Your task to perform on an android device: clear all cookies in the chrome app Image 0: 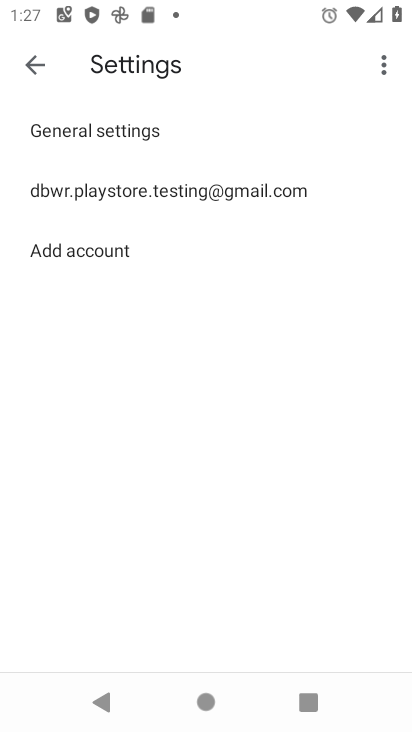
Step 0: click (41, 80)
Your task to perform on an android device: clear all cookies in the chrome app Image 1: 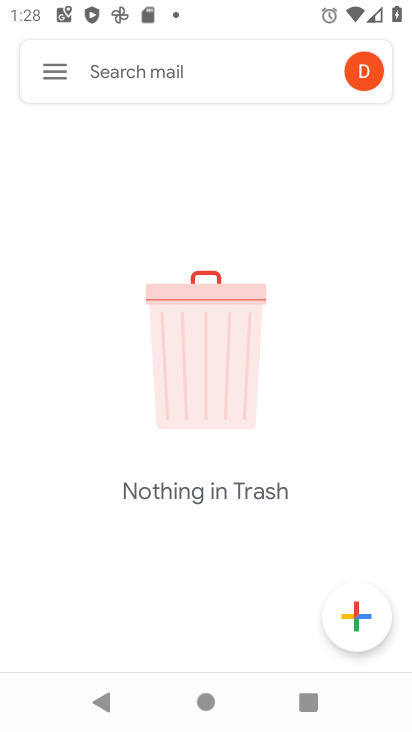
Step 1: press home button
Your task to perform on an android device: clear all cookies in the chrome app Image 2: 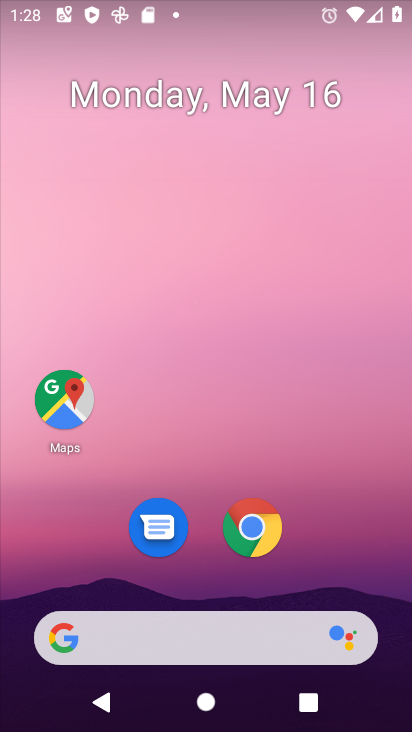
Step 2: drag from (365, 513) to (308, 32)
Your task to perform on an android device: clear all cookies in the chrome app Image 3: 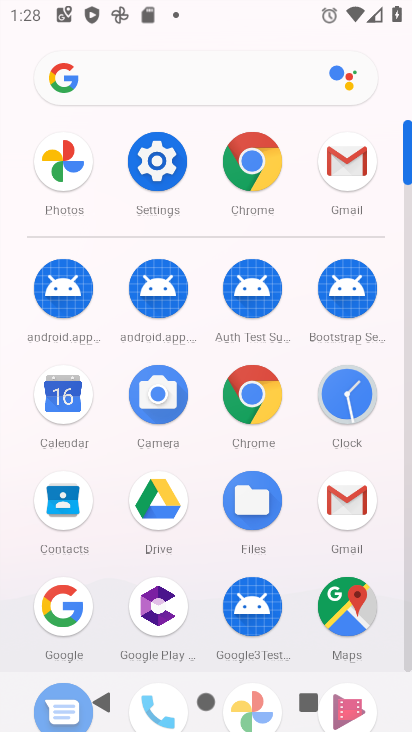
Step 3: click (254, 405)
Your task to perform on an android device: clear all cookies in the chrome app Image 4: 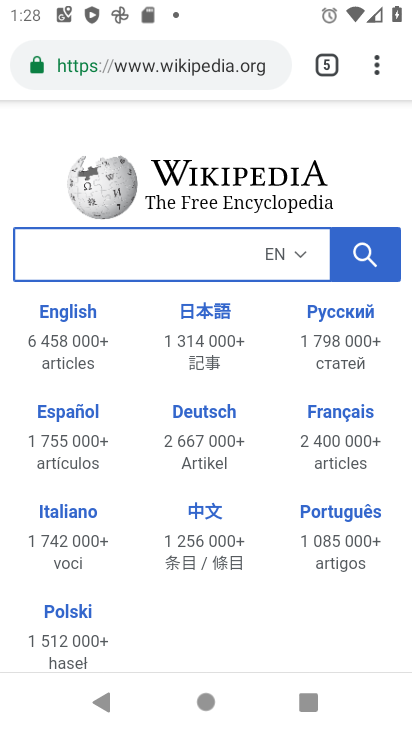
Step 4: click (374, 76)
Your task to perform on an android device: clear all cookies in the chrome app Image 5: 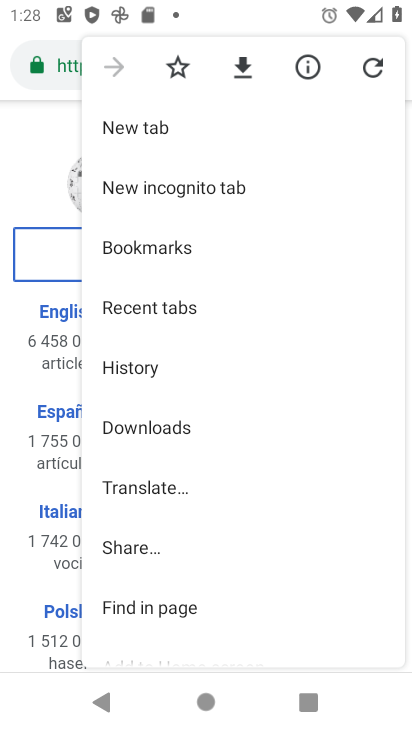
Step 5: click (188, 356)
Your task to perform on an android device: clear all cookies in the chrome app Image 6: 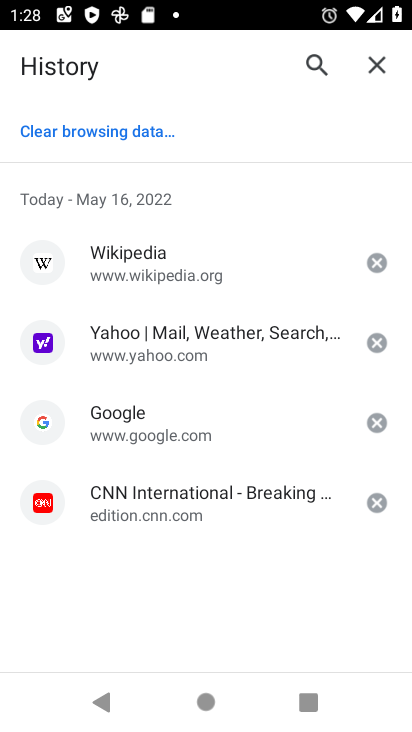
Step 6: click (172, 142)
Your task to perform on an android device: clear all cookies in the chrome app Image 7: 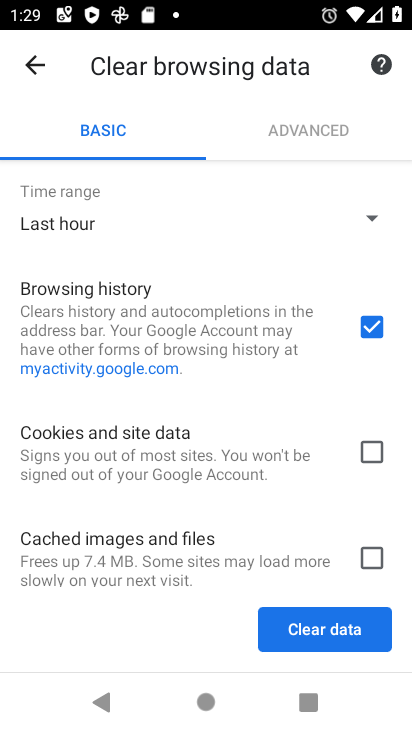
Step 7: click (372, 332)
Your task to perform on an android device: clear all cookies in the chrome app Image 8: 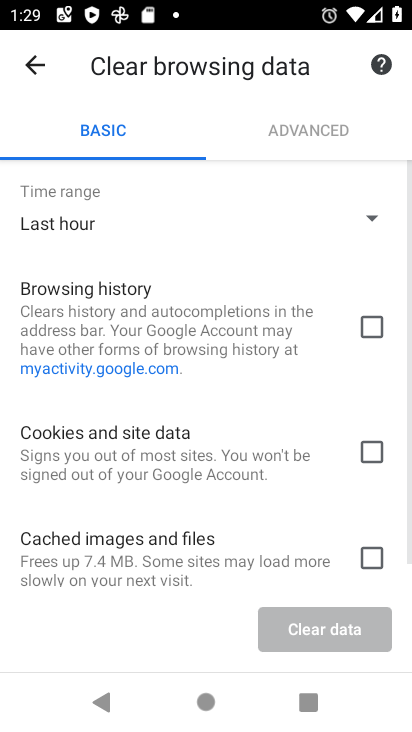
Step 8: click (360, 454)
Your task to perform on an android device: clear all cookies in the chrome app Image 9: 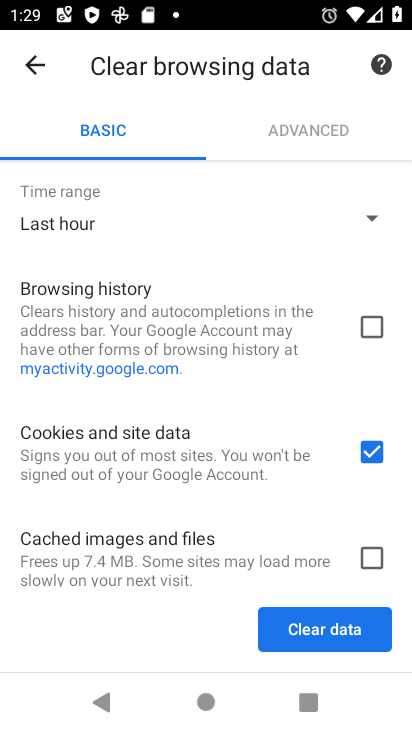
Step 9: click (365, 547)
Your task to perform on an android device: clear all cookies in the chrome app Image 10: 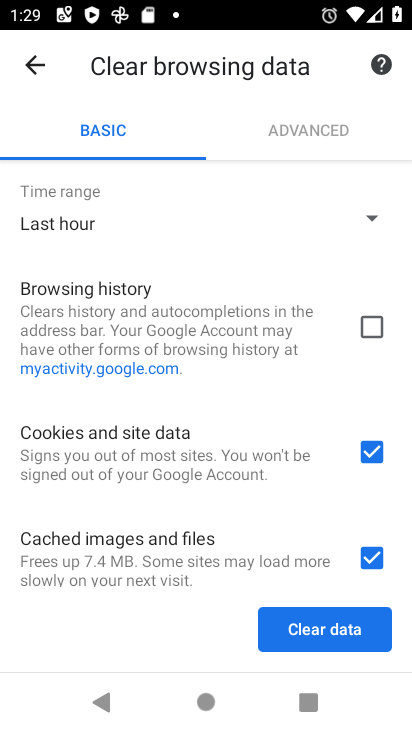
Step 10: click (363, 630)
Your task to perform on an android device: clear all cookies in the chrome app Image 11: 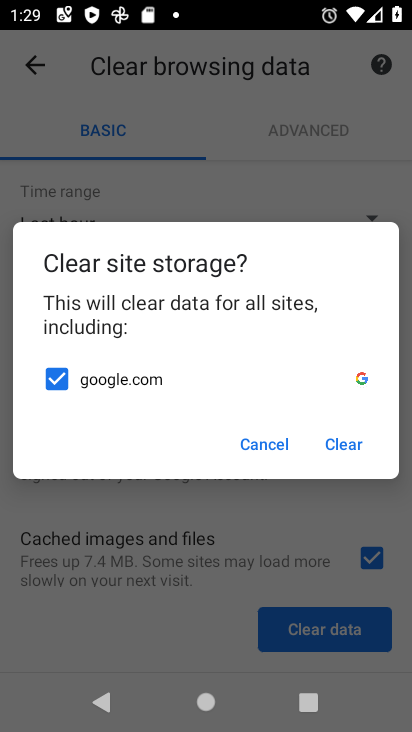
Step 11: click (361, 426)
Your task to perform on an android device: clear all cookies in the chrome app Image 12: 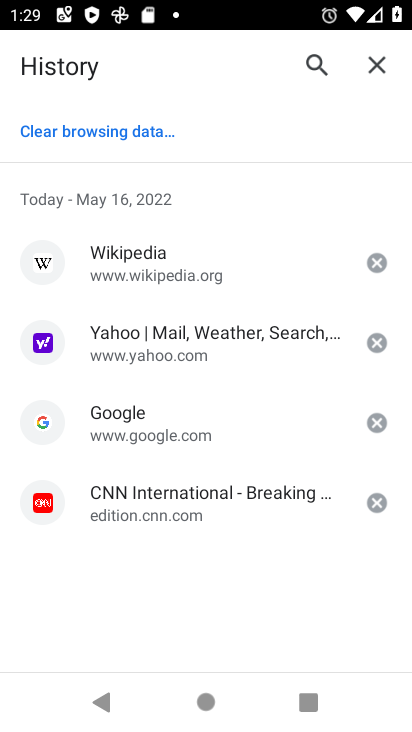
Step 12: task complete